Your task to perform on an android device: install app "Google Play services" Image 0: 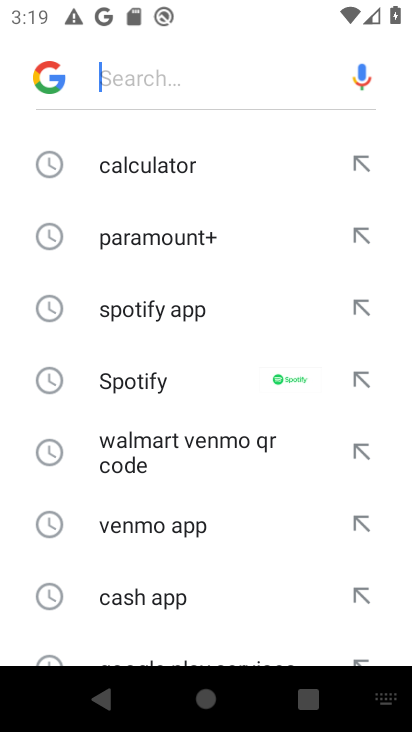
Step 0: type "google "
Your task to perform on an android device: install app "Google Play services" Image 1: 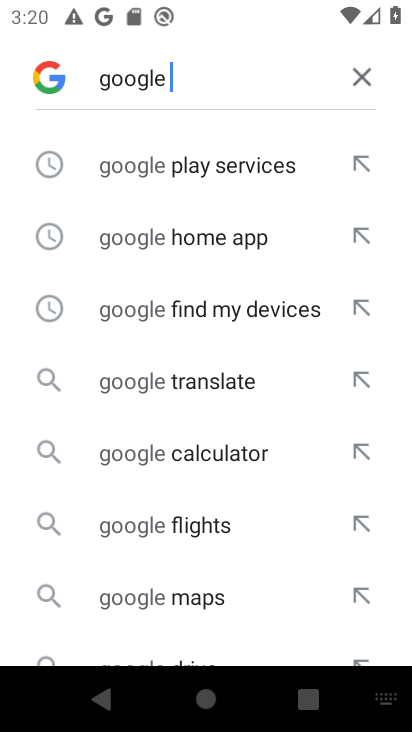
Step 1: click (275, 158)
Your task to perform on an android device: install app "Google Play services" Image 2: 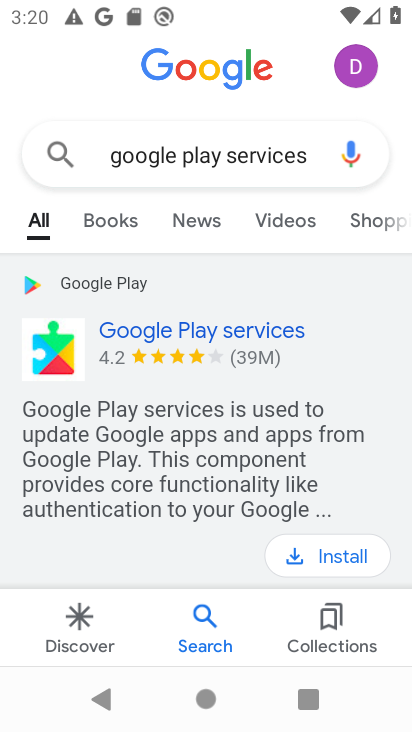
Step 2: click (305, 565)
Your task to perform on an android device: install app "Google Play services" Image 3: 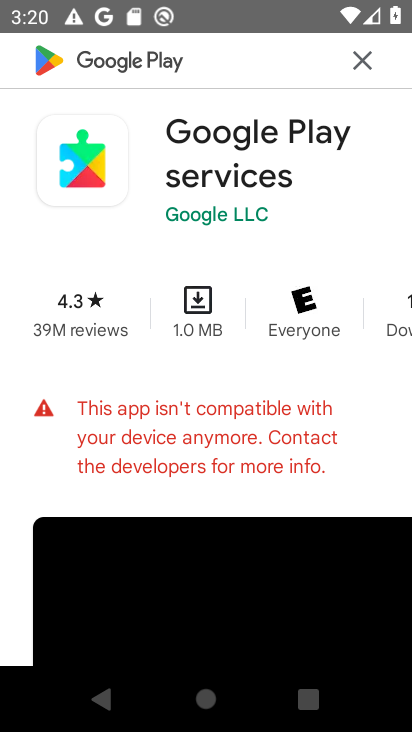
Step 3: task complete